Your task to perform on an android device: turn off location Image 0: 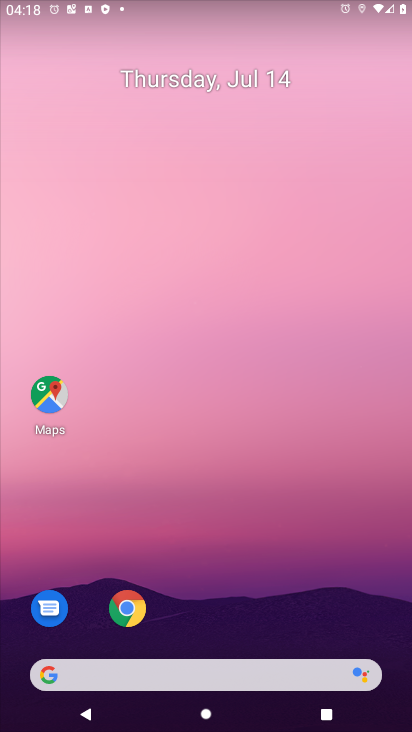
Step 0: drag from (375, 622) to (349, 180)
Your task to perform on an android device: turn off location Image 1: 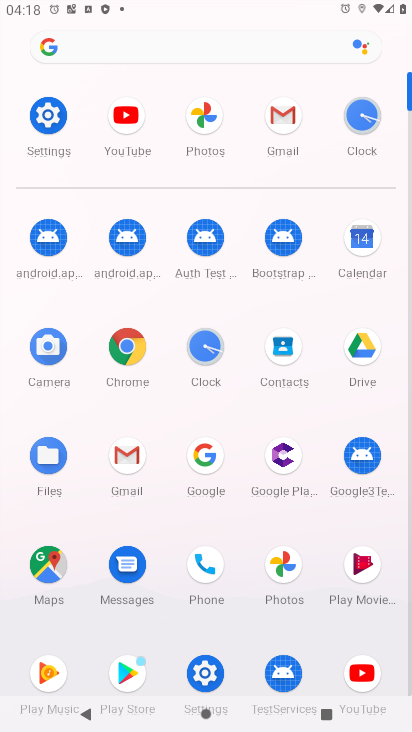
Step 1: click (205, 670)
Your task to perform on an android device: turn off location Image 2: 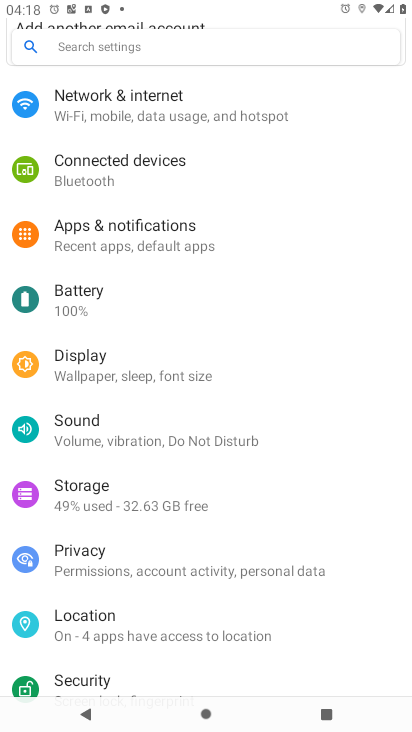
Step 2: drag from (379, 595) to (352, 202)
Your task to perform on an android device: turn off location Image 3: 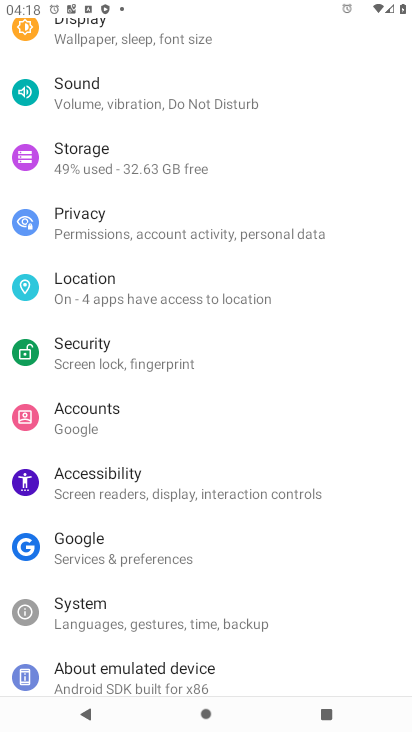
Step 3: click (81, 287)
Your task to perform on an android device: turn off location Image 4: 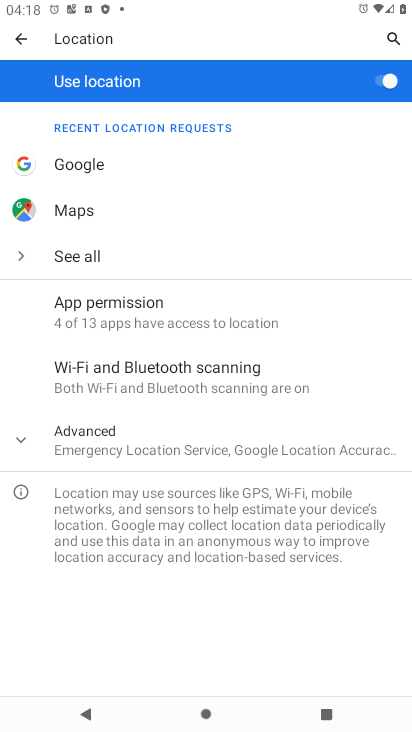
Step 4: click (381, 79)
Your task to perform on an android device: turn off location Image 5: 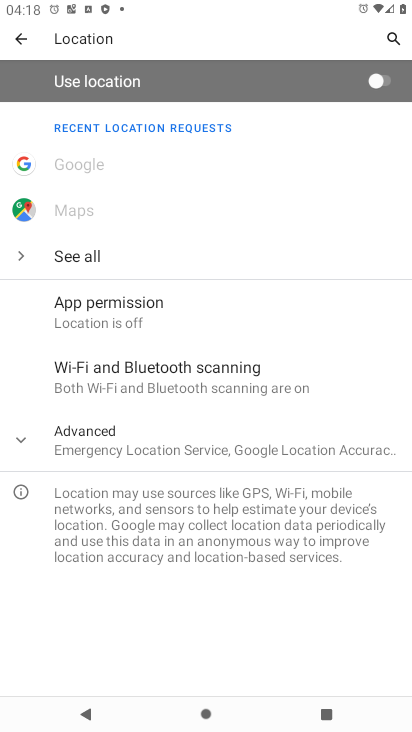
Step 5: task complete